Your task to perform on an android device: toggle priority inbox in the gmail app Image 0: 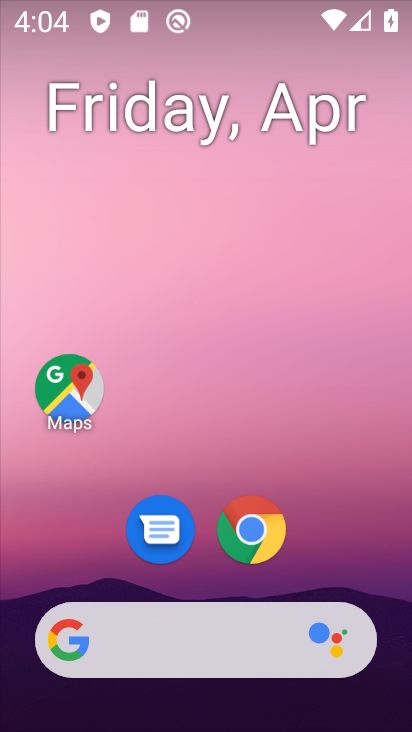
Step 0: drag from (203, 577) to (212, 64)
Your task to perform on an android device: toggle priority inbox in the gmail app Image 1: 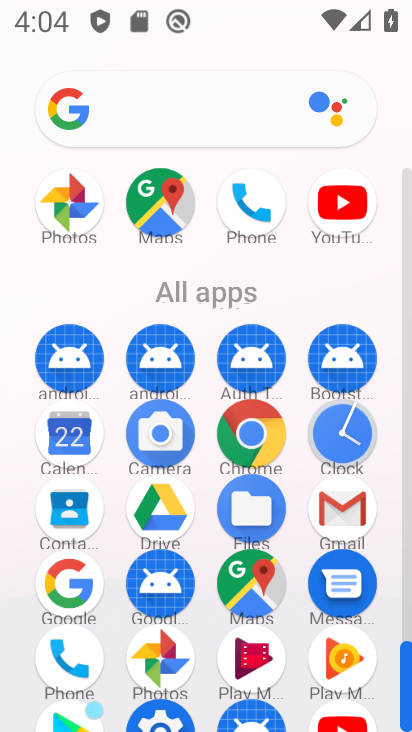
Step 1: click (336, 499)
Your task to perform on an android device: toggle priority inbox in the gmail app Image 2: 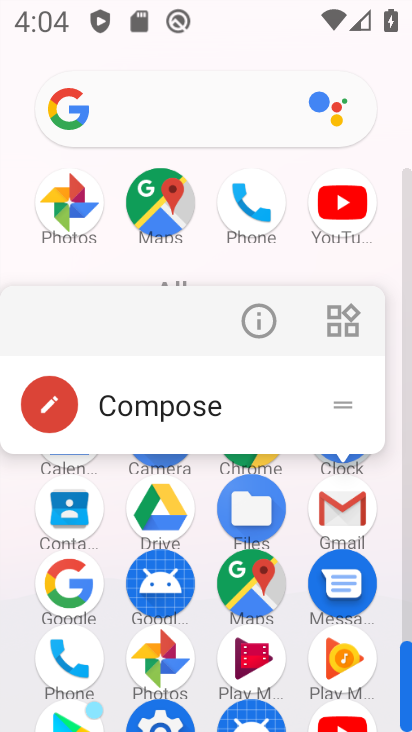
Step 2: click (340, 502)
Your task to perform on an android device: toggle priority inbox in the gmail app Image 3: 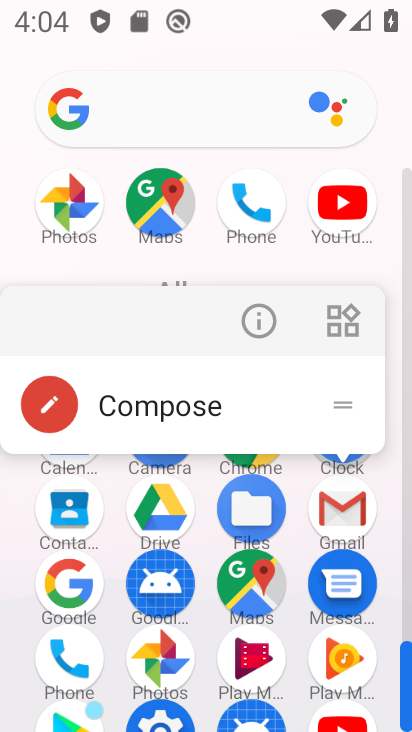
Step 3: click (338, 501)
Your task to perform on an android device: toggle priority inbox in the gmail app Image 4: 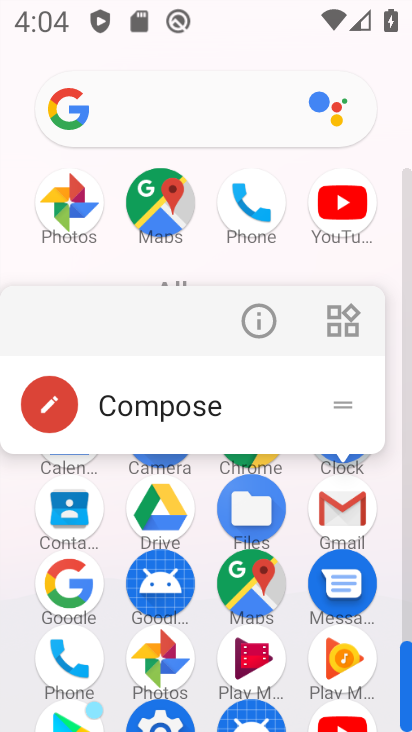
Step 4: click (388, 548)
Your task to perform on an android device: toggle priority inbox in the gmail app Image 5: 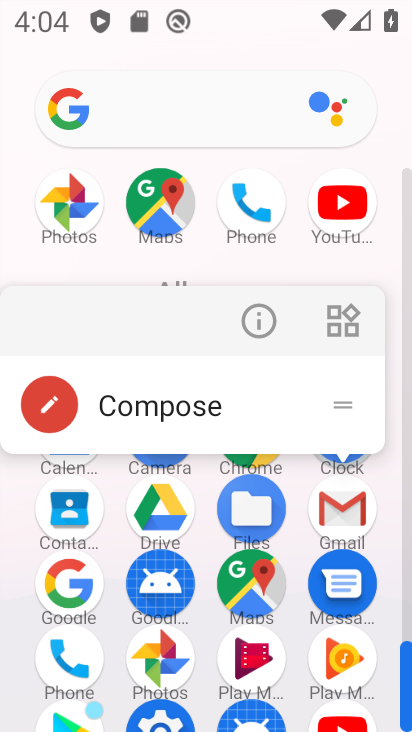
Step 5: click (22, 589)
Your task to perform on an android device: toggle priority inbox in the gmail app Image 6: 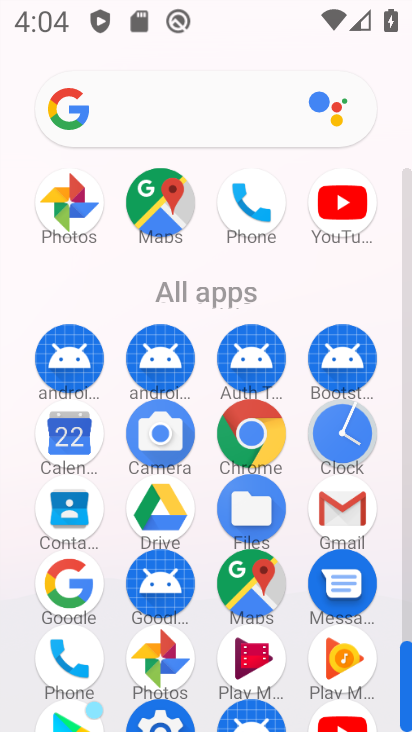
Step 6: click (343, 500)
Your task to perform on an android device: toggle priority inbox in the gmail app Image 7: 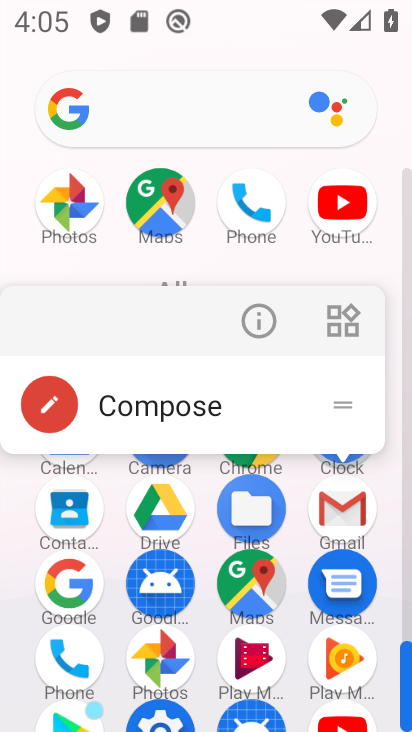
Step 7: click (17, 543)
Your task to perform on an android device: toggle priority inbox in the gmail app Image 8: 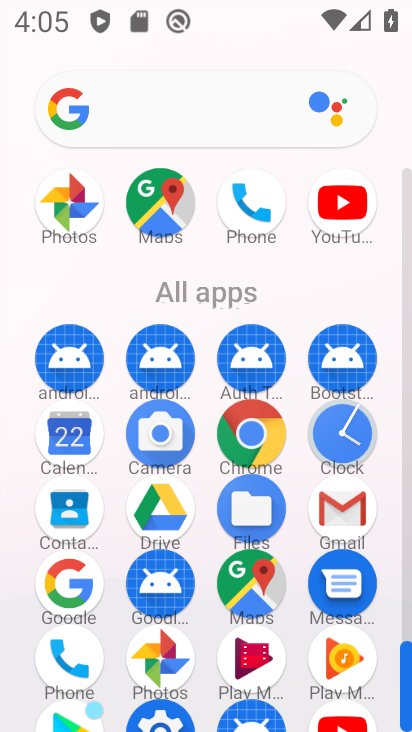
Step 8: click (340, 509)
Your task to perform on an android device: toggle priority inbox in the gmail app Image 9: 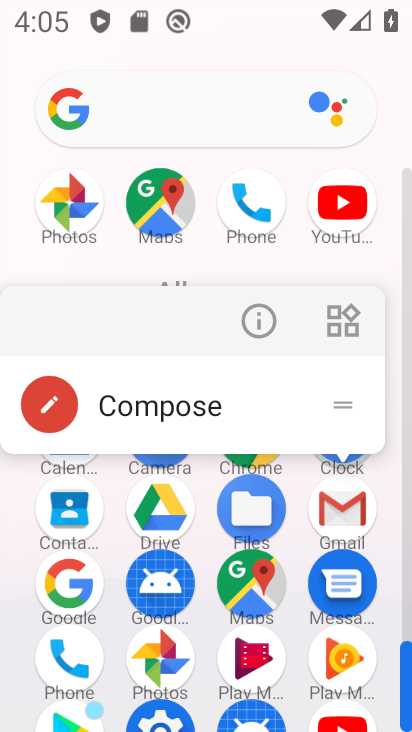
Step 9: click (340, 497)
Your task to perform on an android device: toggle priority inbox in the gmail app Image 10: 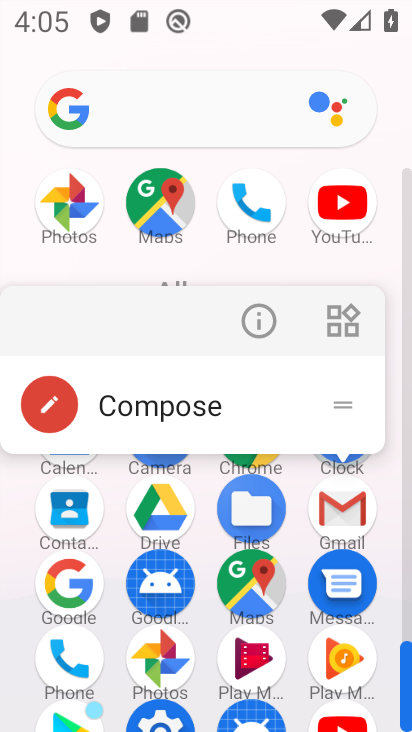
Step 10: click (22, 534)
Your task to perform on an android device: toggle priority inbox in the gmail app Image 11: 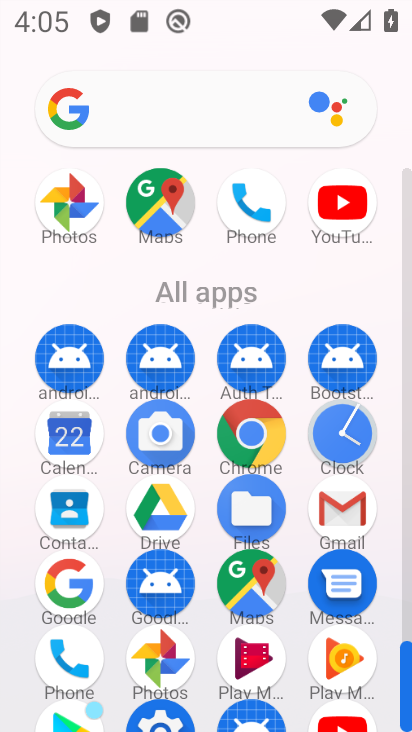
Step 11: click (342, 503)
Your task to perform on an android device: toggle priority inbox in the gmail app Image 12: 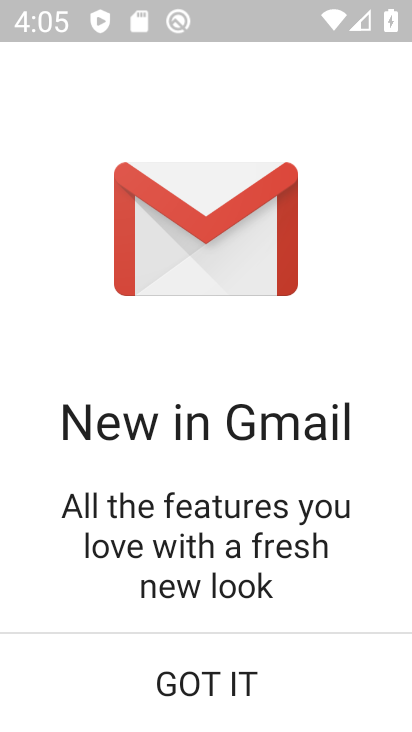
Step 12: click (221, 692)
Your task to perform on an android device: toggle priority inbox in the gmail app Image 13: 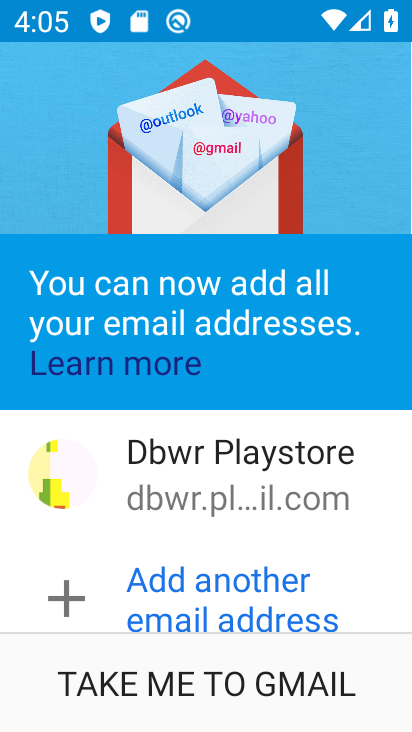
Step 13: click (195, 695)
Your task to perform on an android device: toggle priority inbox in the gmail app Image 14: 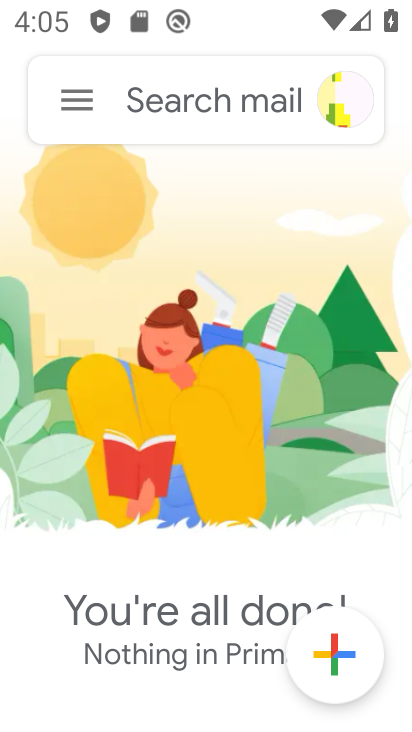
Step 14: click (80, 105)
Your task to perform on an android device: toggle priority inbox in the gmail app Image 15: 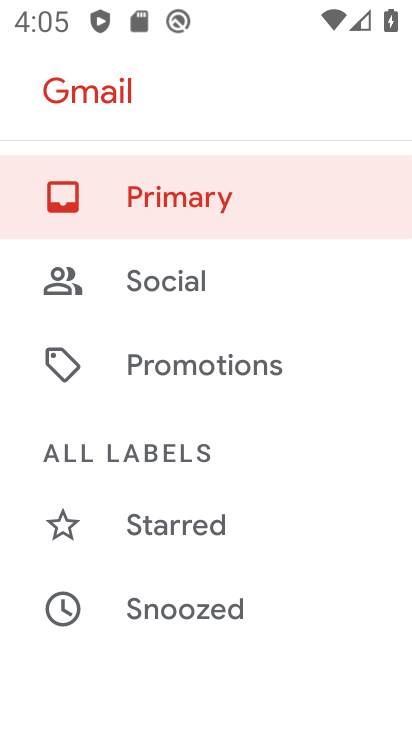
Step 15: drag from (97, 644) to (79, 163)
Your task to perform on an android device: toggle priority inbox in the gmail app Image 16: 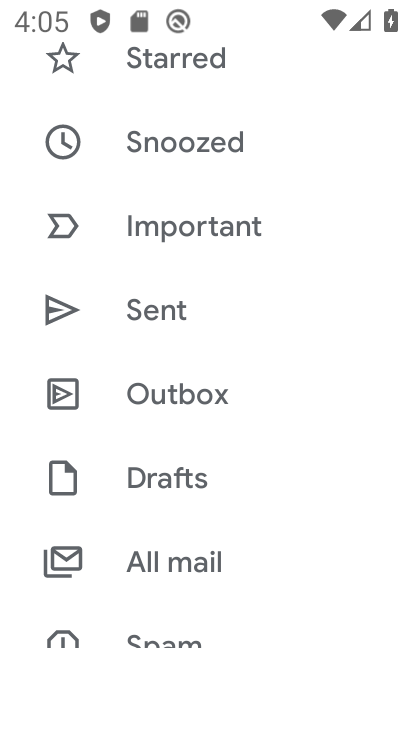
Step 16: drag from (113, 600) to (114, 109)
Your task to perform on an android device: toggle priority inbox in the gmail app Image 17: 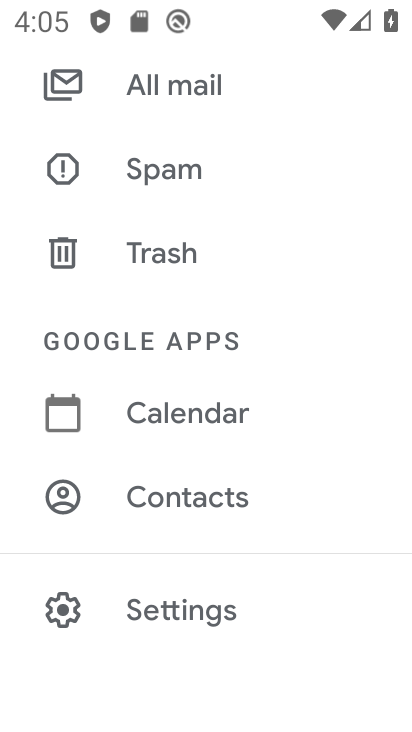
Step 17: click (113, 607)
Your task to perform on an android device: toggle priority inbox in the gmail app Image 18: 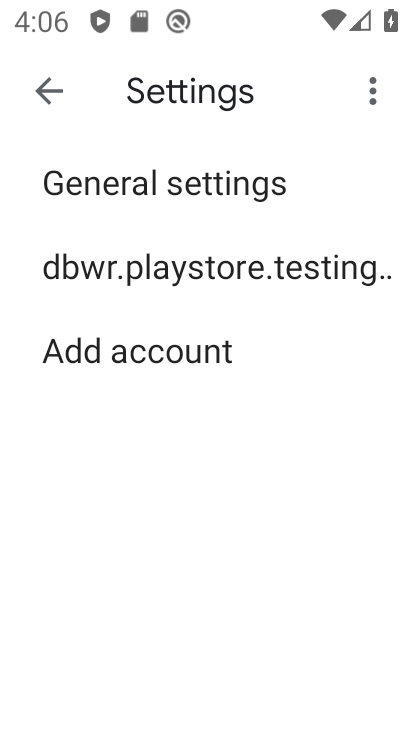
Step 18: click (266, 270)
Your task to perform on an android device: toggle priority inbox in the gmail app Image 19: 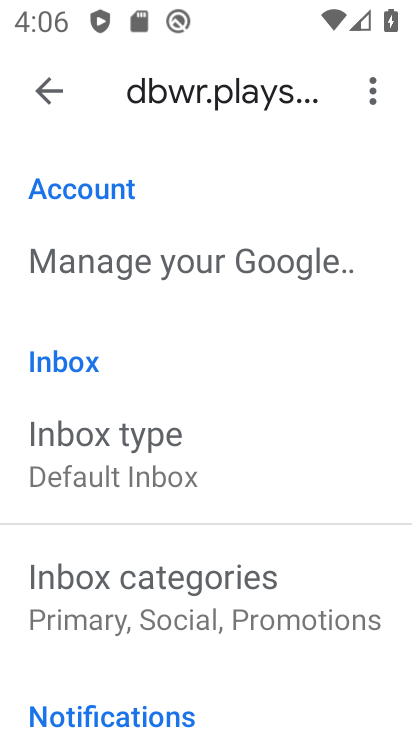
Step 19: click (198, 460)
Your task to perform on an android device: toggle priority inbox in the gmail app Image 20: 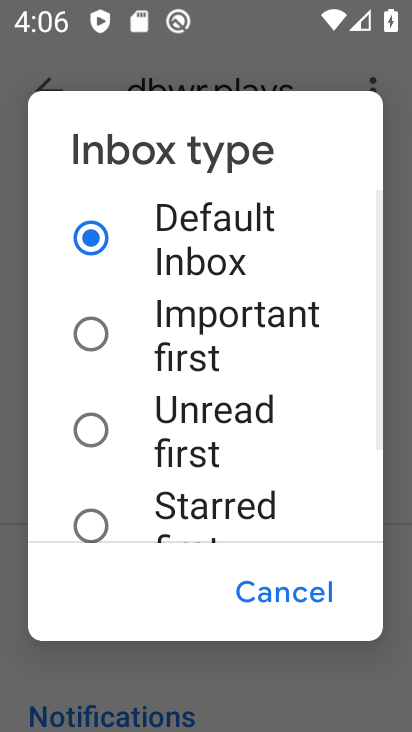
Step 20: drag from (128, 490) to (125, 212)
Your task to perform on an android device: toggle priority inbox in the gmail app Image 21: 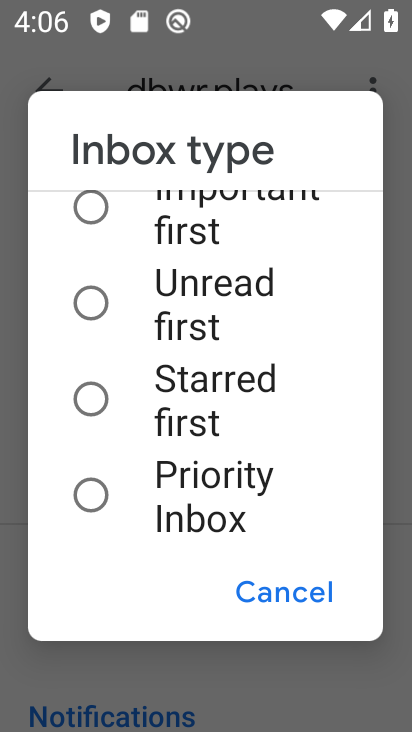
Step 21: click (90, 489)
Your task to perform on an android device: toggle priority inbox in the gmail app Image 22: 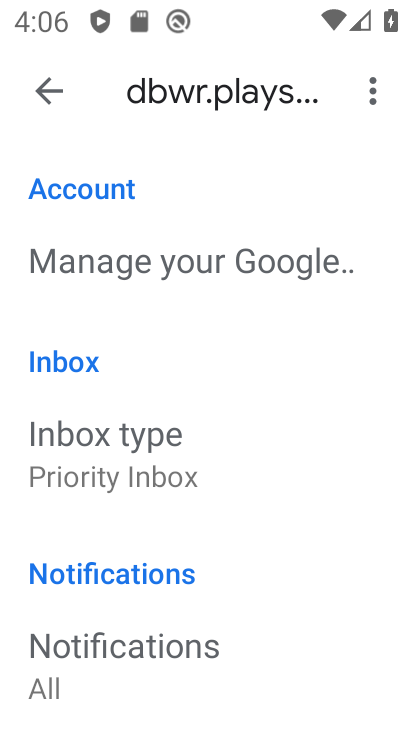
Step 22: task complete